Your task to perform on an android device: Open settings on Google Maps Image 0: 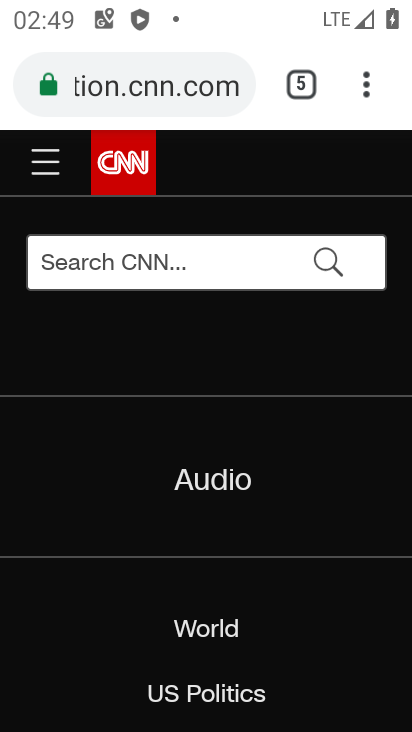
Step 0: press home button
Your task to perform on an android device: Open settings on Google Maps Image 1: 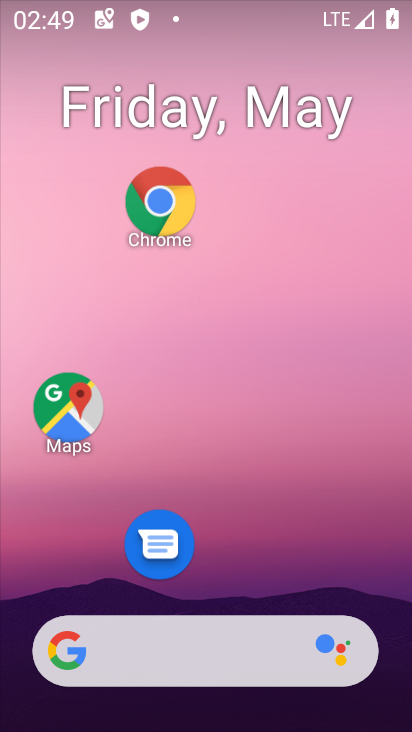
Step 1: drag from (268, 467) to (262, 137)
Your task to perform on an android device: Open settings on Google Maps Image 2: 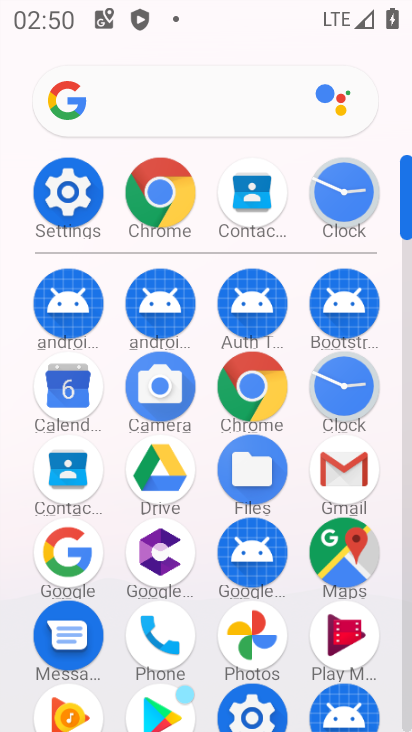
Step 2: click (329, 555)
Your task to perform on an android device: Open settings on Google Maps Image 3: 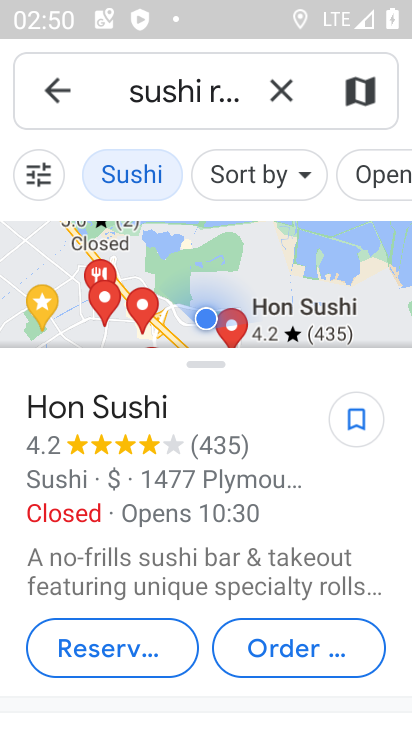
Step 3: click (42, 97)
Your task to perform on an android device: Open settings on Google Maps Image 4: 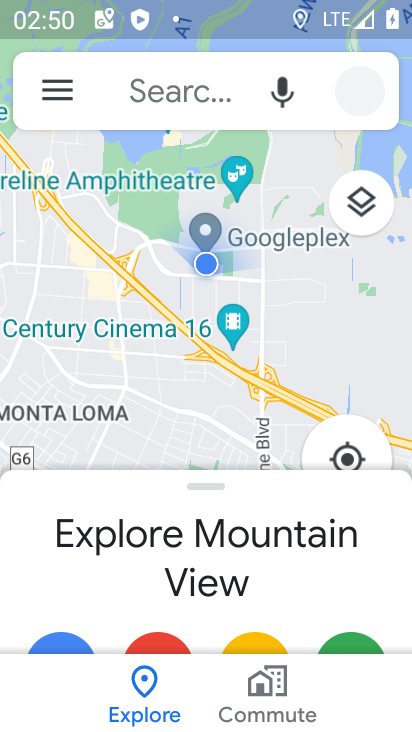
Step 4: click (42, 97)
Your task to perform on an android device: Open settings on Google Maps Image 5: 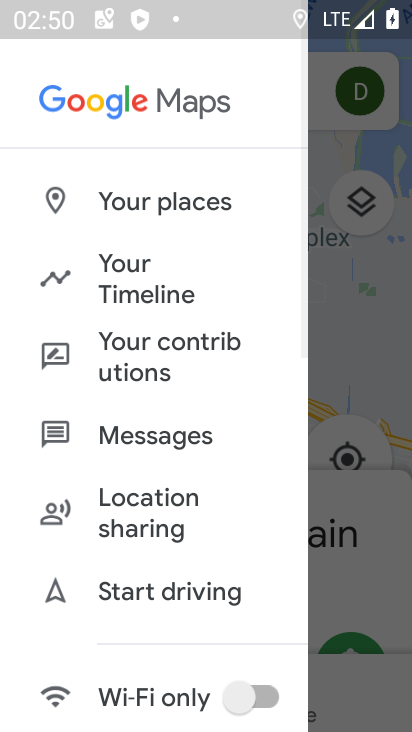
Step 5: drag from (102, 643) to (173, 125)
Your task to perform on an android device: Open settings on Google Maps Image 6: 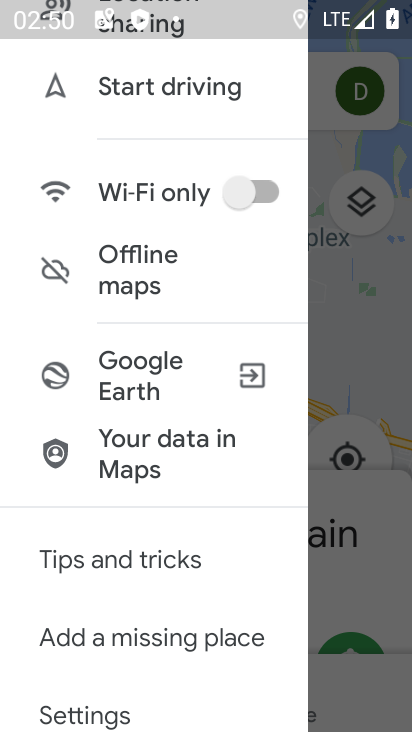
Step 6: drag from (158, 573) to (144, 175)
Your task to perform on an android device: Open settings on Google Maps Image 7: 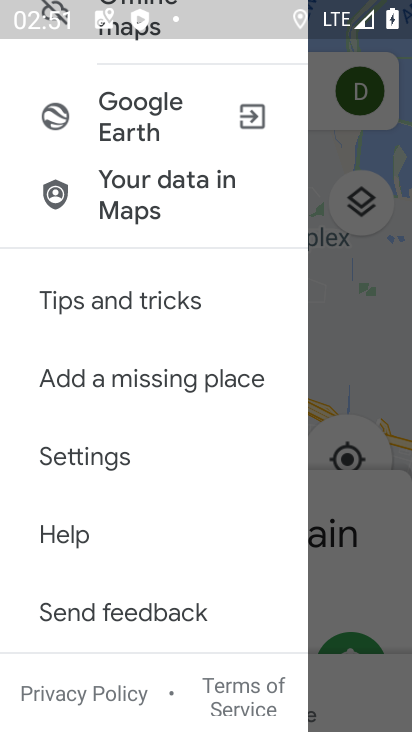
Step 7: click (117, 461)
Your task to perform on an android device: Open settings on Google Maps Image 8: 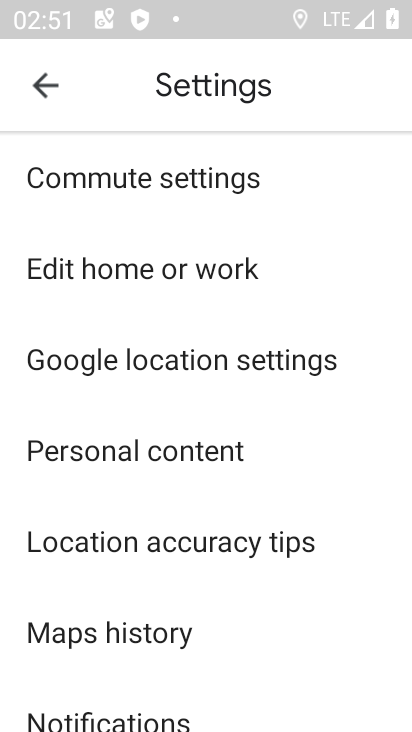
Step 8: task complete